Your task to perform on an android device: Open wifi settings Image 0: 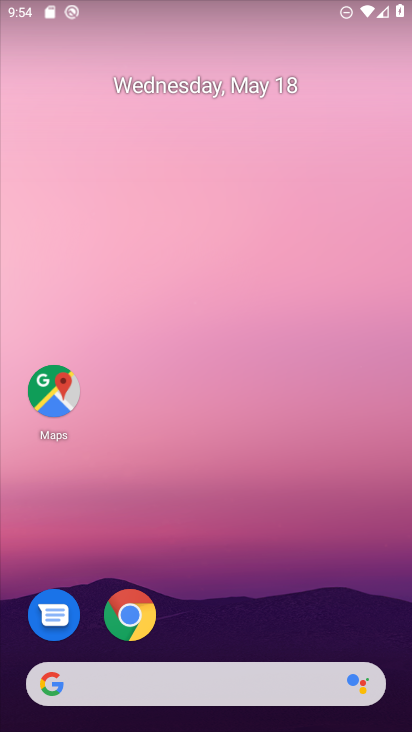
Step 0: drag from (278, 609) to (209, 121)
Your task to perform on an android device: Open wifi settings Image 1: 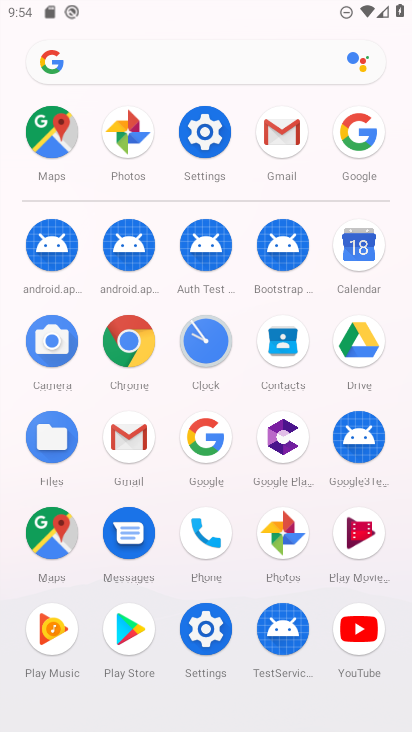
Step 1: click (205, 139)
Your task to perform on an android device: Open wifi settings Image 2: 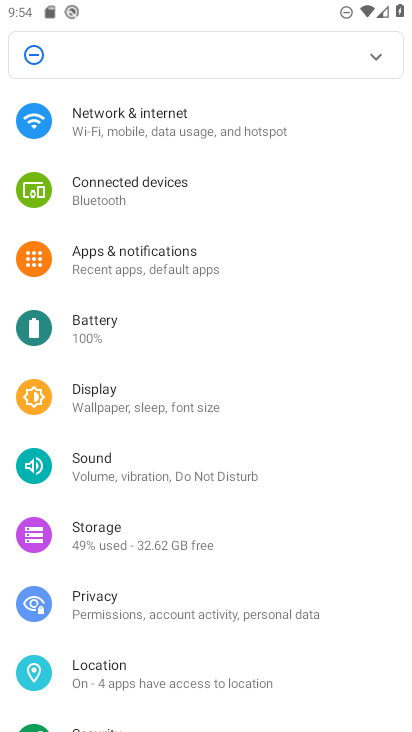
Step 2: click (190, 126)
Your task to perform on an android device: Open wifi settings Image 3: 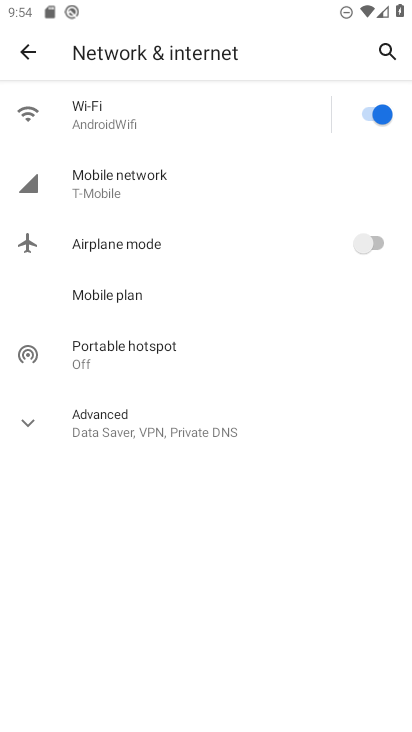
Step 3: click (155, 119)
Your task to perform on an android device: Open wifi settings Image 4: 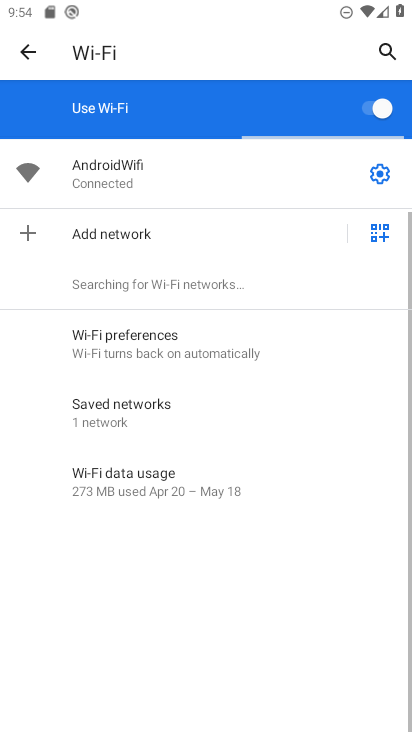
Step 4: click (373, 184)
Your task to perform on an android device: Open wifi settings Image 5: 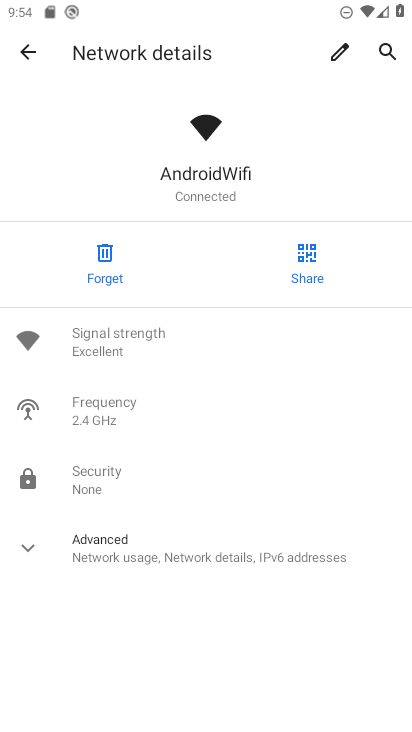
Step 5: task complete